Your task to perform on an android device: What is the recent news? Image 0: 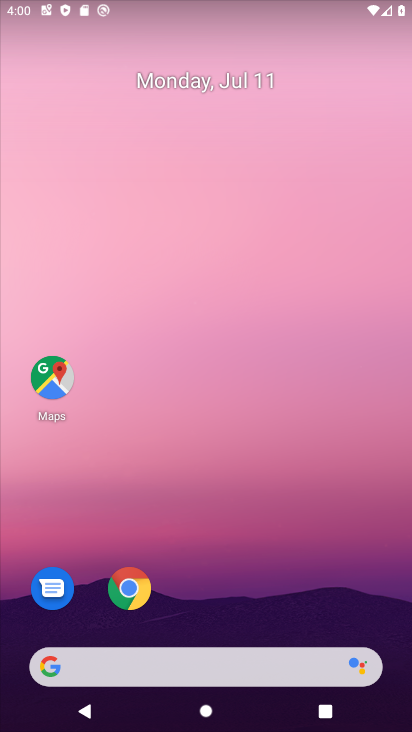
Step 0: click (176, 667)
Your task to perform on an android device: What is the recent news? Image 1: 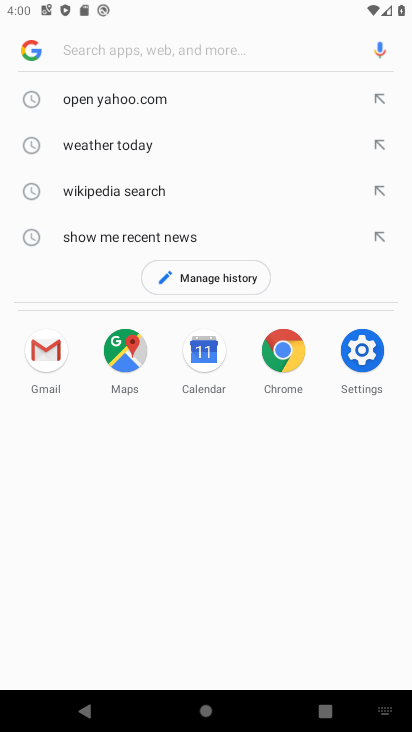
Step 1: type "recent news"
Your task to perform on an android device: What is the recent news? Image 2: 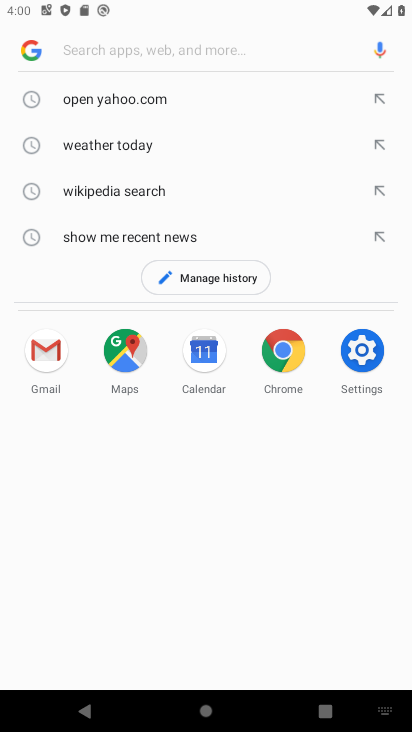
Step 2: click (95, 45)
Your task to perform on an android device: What is the recent news? Image 3: 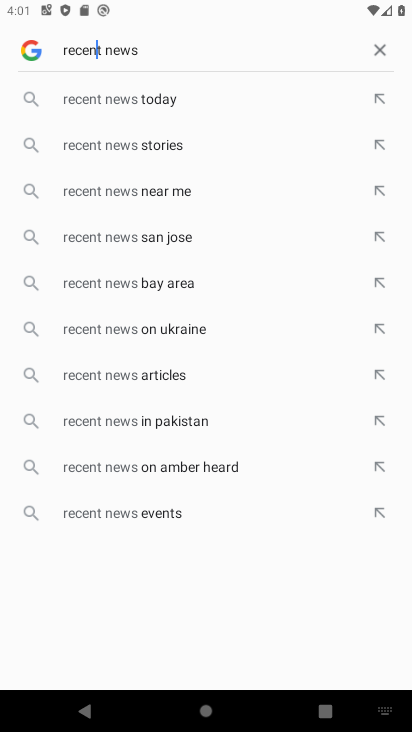
Step 3: press enter
Your task to perform on an android device: What is the recent news? Image 4: 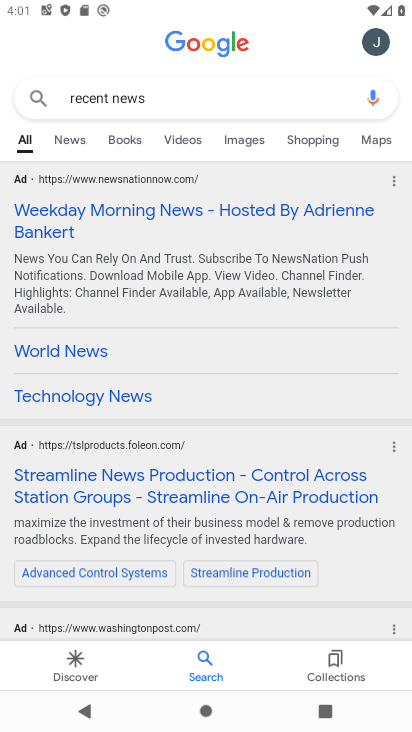
Step 4: task complete